Your task to perform on an android device: open a bookmark in the chrome app Image 0: 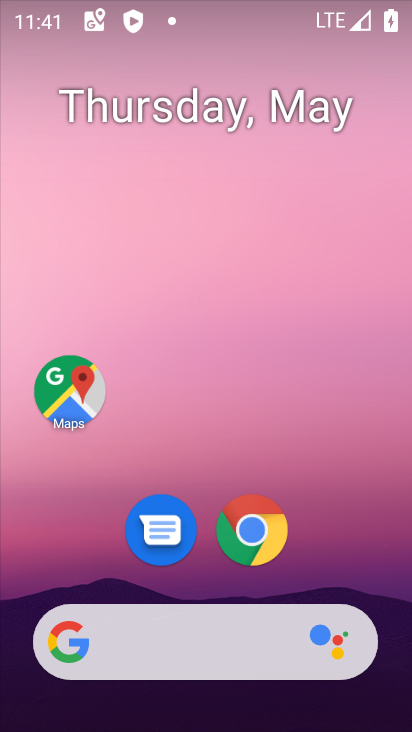
Step 0: click (269, 544)
Your task to perform on an android device: open a bookmark in the chrome app Image 1: 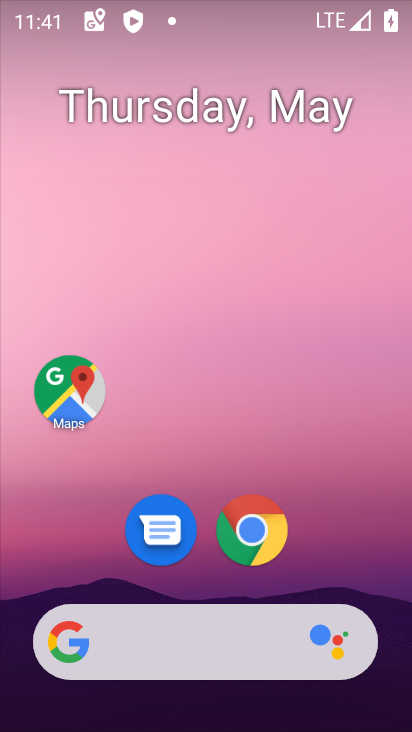
Step 1: click (268, 543)
Your task to perform on an android device: open a bookmark in the chrome app Image 2: 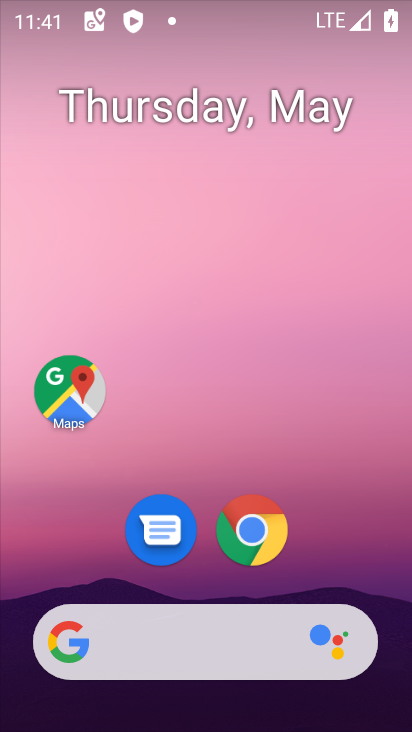
Step 2: click (253, 532)
Your task to perform on an android device: open a bookmark in the chrome app Image 3: 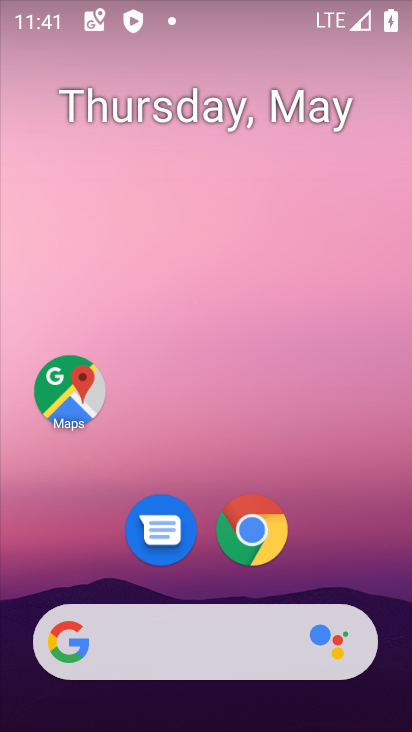
Step 3: click (253, 532)
Your task to perform on an android device: open a bookmark in the chrome app Image 4: 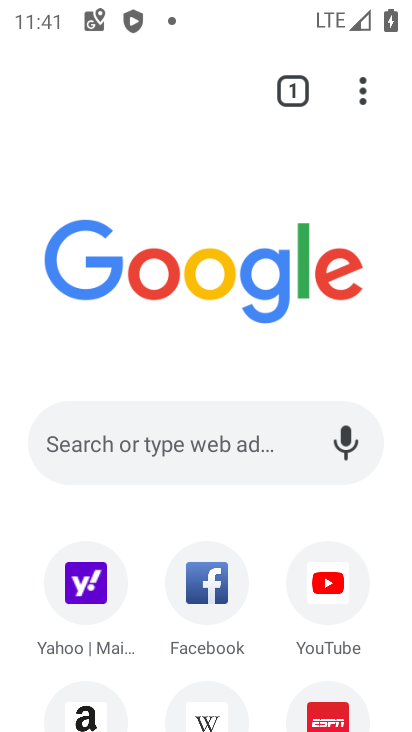
Step 4: click (362, 92)
Your task to perform on an android device: open a bookmark in the chrome app Image 5: 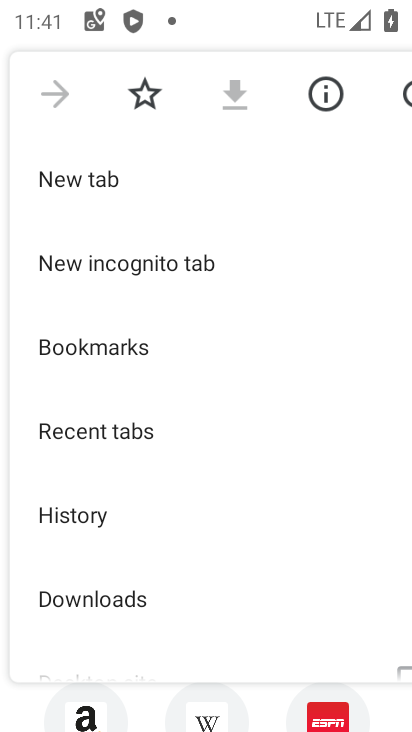
Step 5: click (109, 349)
Your task to perform on an android device: open a bookmark in the chrome app Image 6: 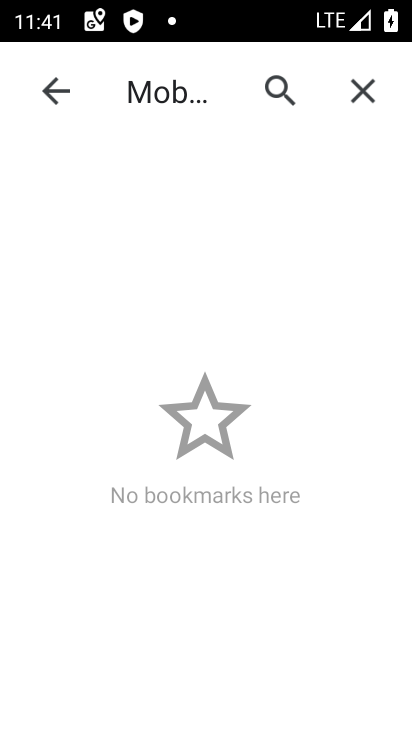
Step 6: task complete